Your task to perform on an android device: Search for seafood restaurants on Google Maps Image 0: 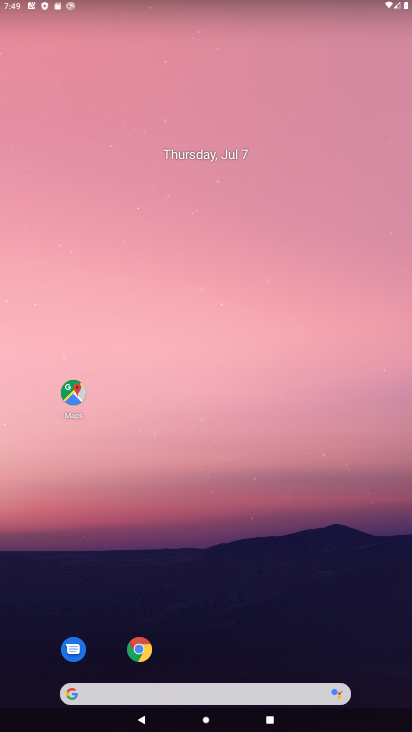
Step 0: click (75, 394)
Your task to perform on an android device: Search for seafood restaurants on Google Maps Image 1: 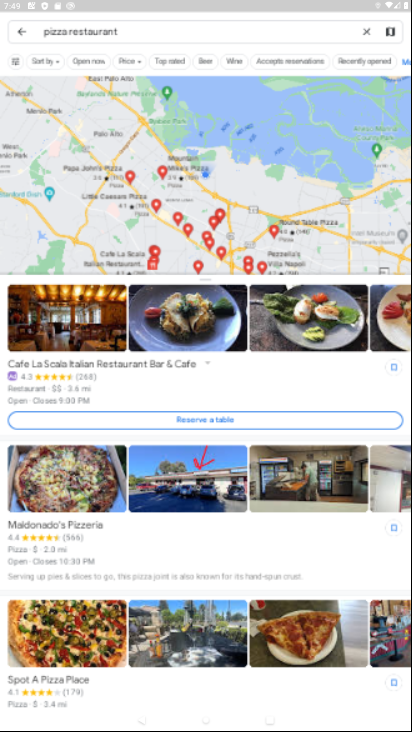
Step 1: click (363, 31)
Your task to perform on an android device: Search for seafood restaurants on Google Maps Image 2: 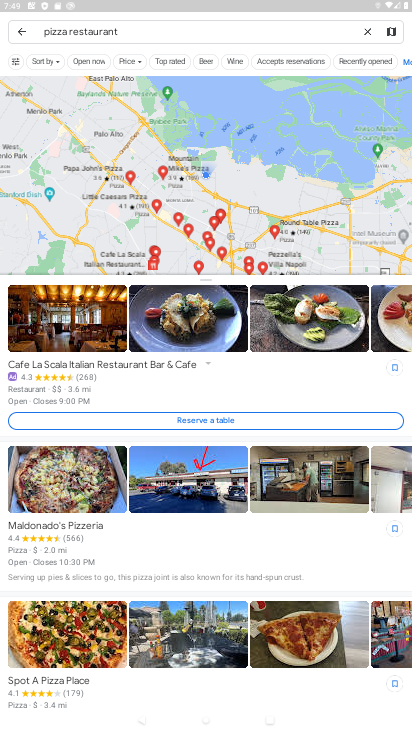
Step 2: click (358, 32)
Your task to perform on an android device: Search for seafood restaurants on Google Maps Image 3: 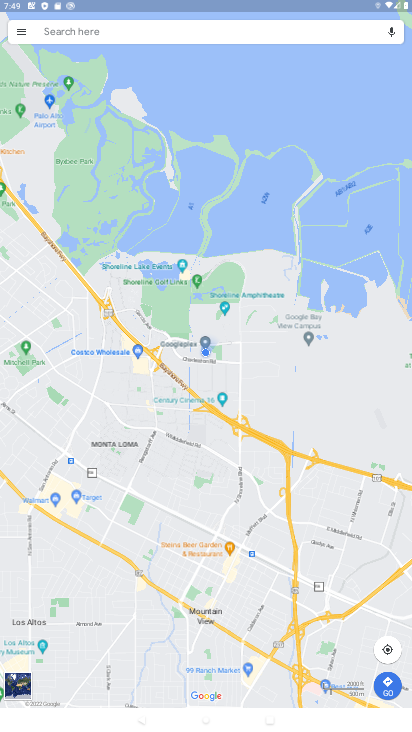
Step 3: click (177, 35)
Your task to perform on an android device: Search for seafood restaurants on Google Maps Image 4: 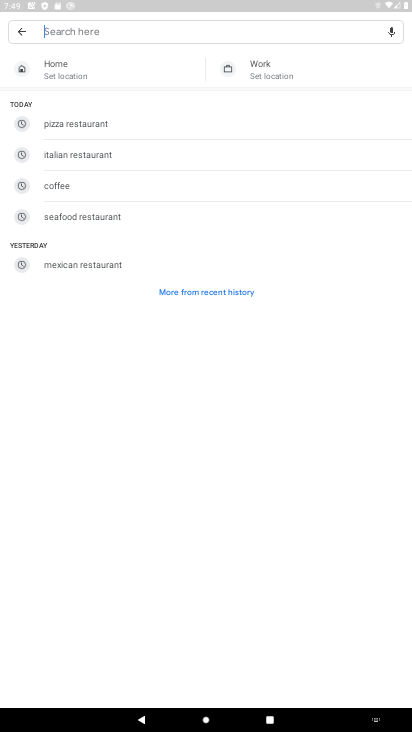
Step 4: type "seafood restaurants"
Your task to perform on an android device: Search for seafood restaurants on Google Maps Image 5: 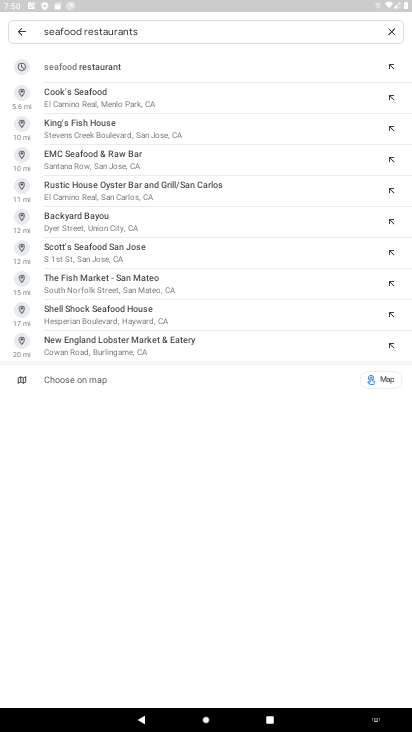
Step 5: click (67, 68)
Your task to perform on an android device: Search for seafood restaurants on Google Maps Image 6: 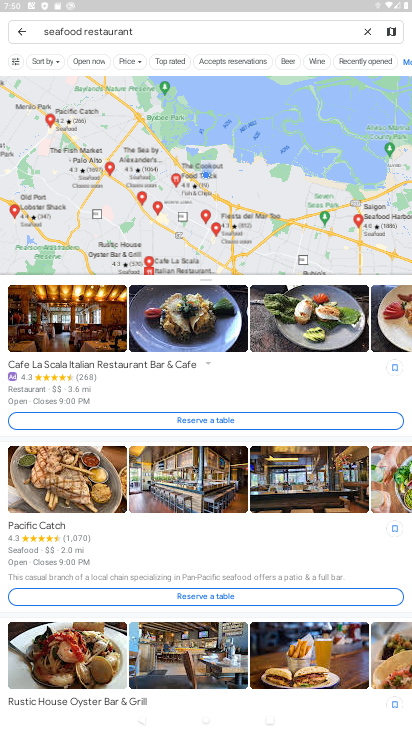
Step 6: task complete